Your task to perform on an android device: make emails show in primary in the gmail app Image 0: 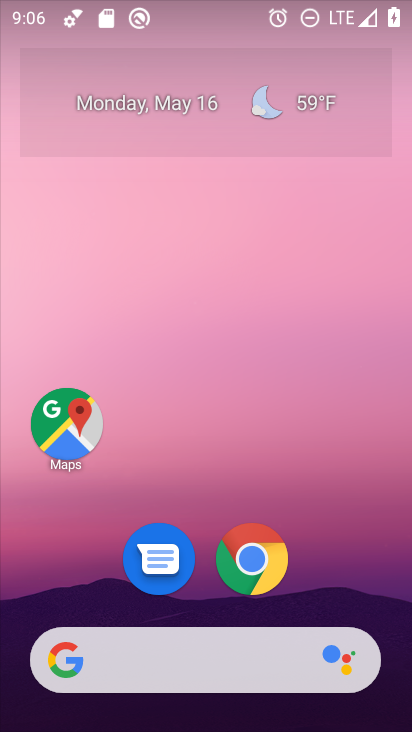
Step 0: drag from (340, 563) to (333, 170)
Your task to perform on an android device: make emails show in primary in the gmail app Image 1: 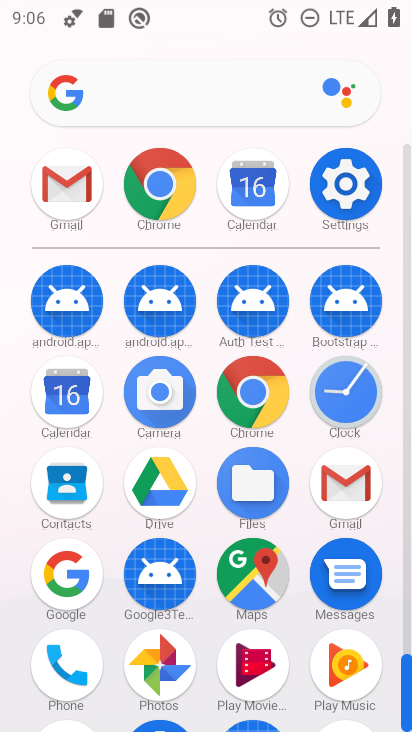
Step 1: drag from (295, 585) to (280, 294)
Your task to perform on an android device: make emails show in primary in the gmail app Image 2: 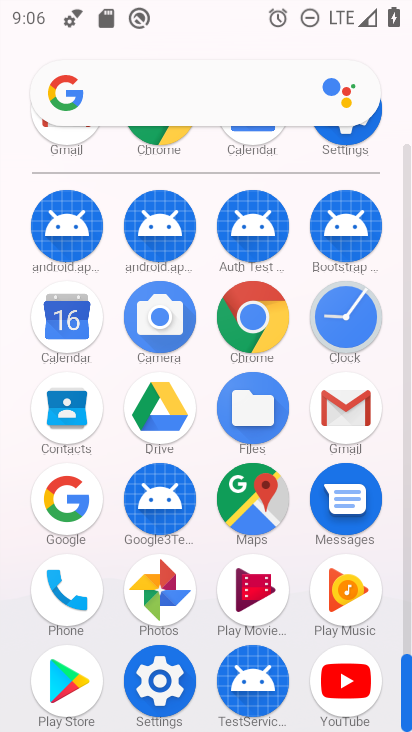
Step 2: click (359, 429)
Your task to perform on an android device: make emails show in primary in the gmail app Image 3: 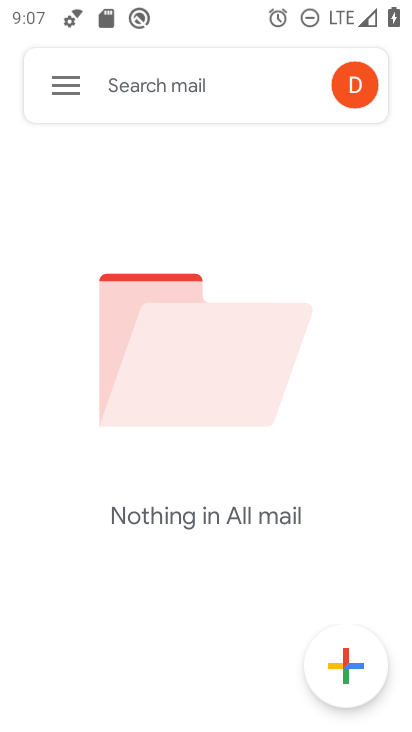
Step 3: click (80, 94)
Your task to perform on an android device: make emails show in primary in the gmail app Image 4: 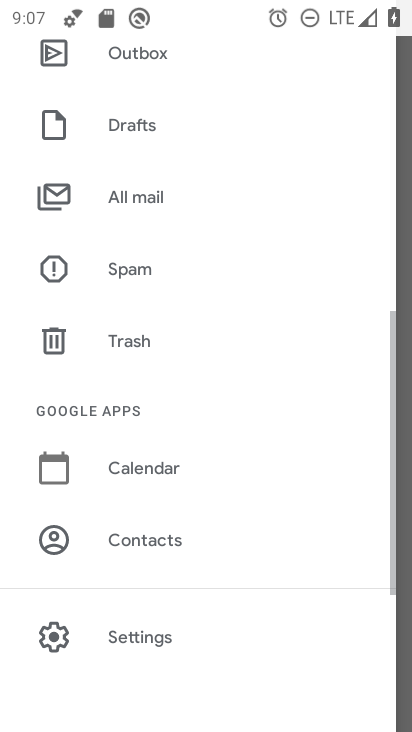
Step 4: click (165, 627)
Your task to perform on an android device: make emails show in primary in the gmail app Image 5: 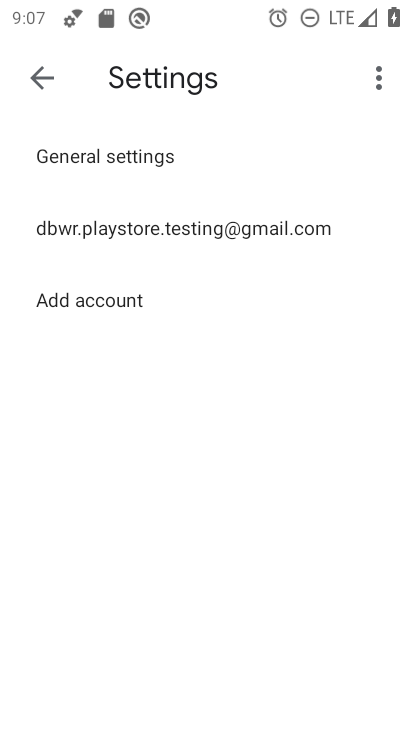
Step 5: click (306, 224)
Your task to perform on an android device: make emails show in primary in the gmail app Image 6: 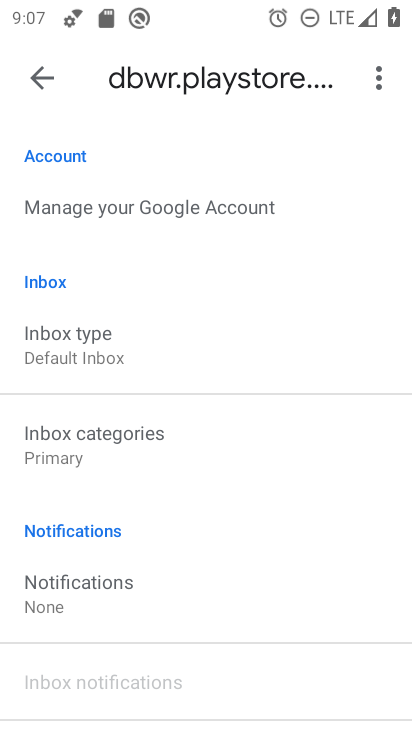
Step 6: drag from (290, 593) to (343, 241)
Your task to perform on an android device: make emails show in primary in the gmail app Image 7: 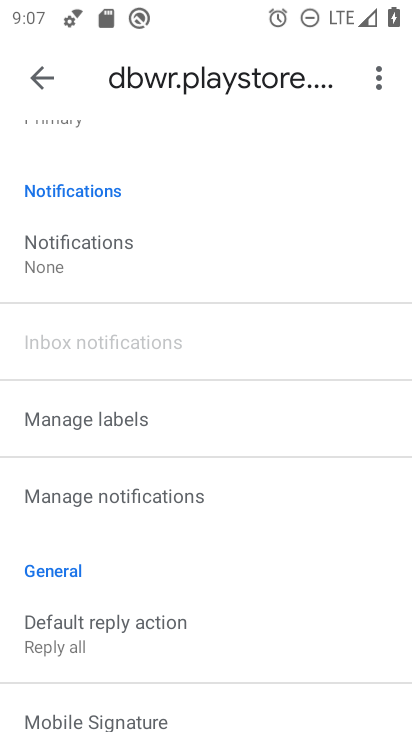
Step 7: drag from (266, 636) to (271, 338)
Your task to perform on an android device: make emails show in primary in the gmail app Image 8: 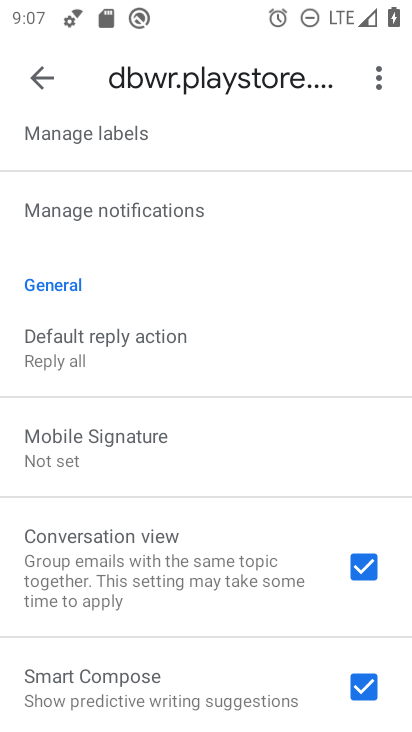
Step 8: drag from (237, 589) to (272, 366)
Your task to perform on an android device: make emails show in primary in the gmail app Image 9: 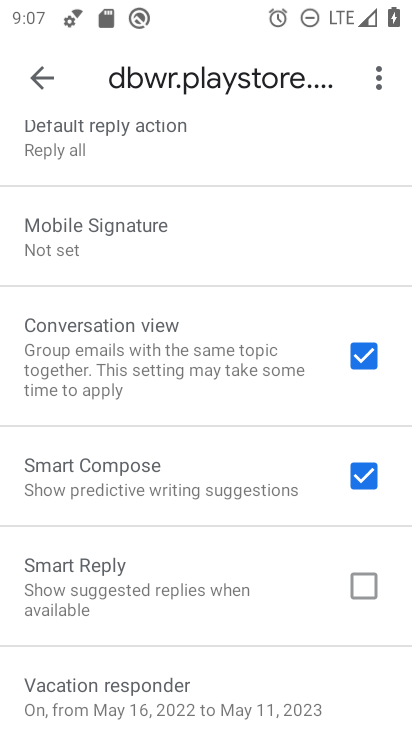
Step 9: drag from (243, 213) to (238, 661)
Your task to perform on an android device: make emails show in primary in the gmail app Image 10: 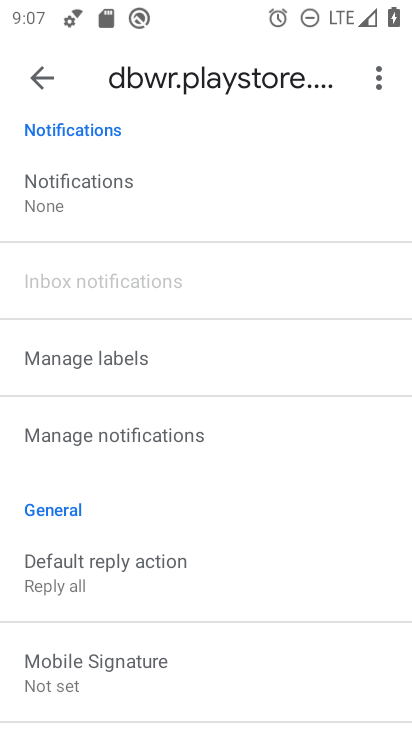
Step 10: drag from (183, 156) to (176, 577)
Your task to perform on an android device: make emails show in primary in the gmail app Image 11: 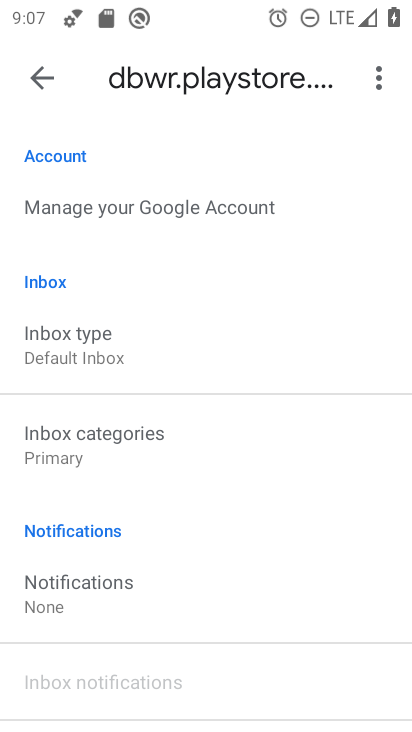
Step 11: click (161, 360)
Your task to perform on an android device: make emails show in primary in the gmail app Image 12: 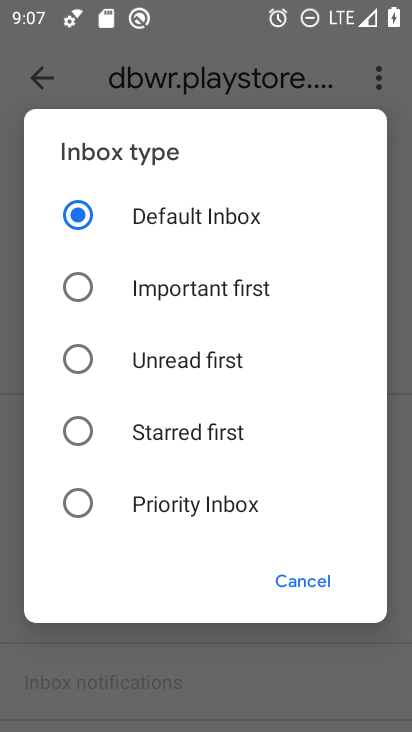
Step 12: click (165, 515)
Your task to perform on an android device: make emails show in primary in the gmail app Image 13: 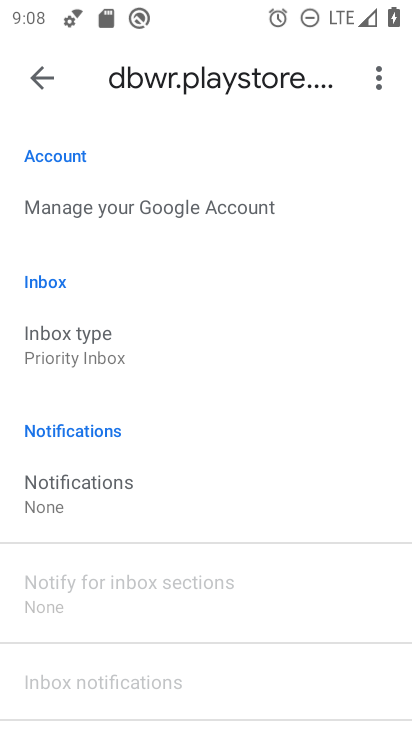
Step 13: task complete